Your task to perform on an android device: turn off improve location accuracy Image 0: 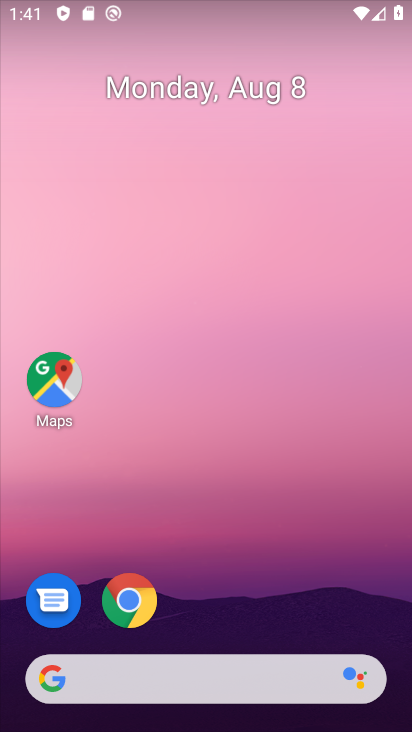
Step 0: drag from (294, 636) to (123, 725)
Your task to perform on an android device: turn off improve location accuracy Image 1: 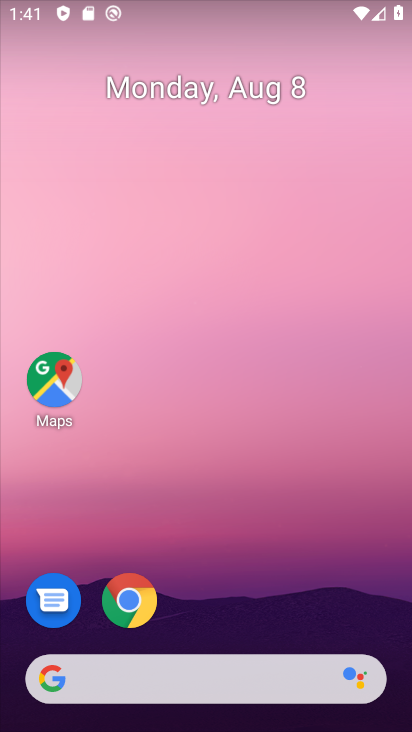
Step 1: drag from (329, 486) to (260, 3)
Your task to perform on an android device: turn off improve location accuracy Image 2: 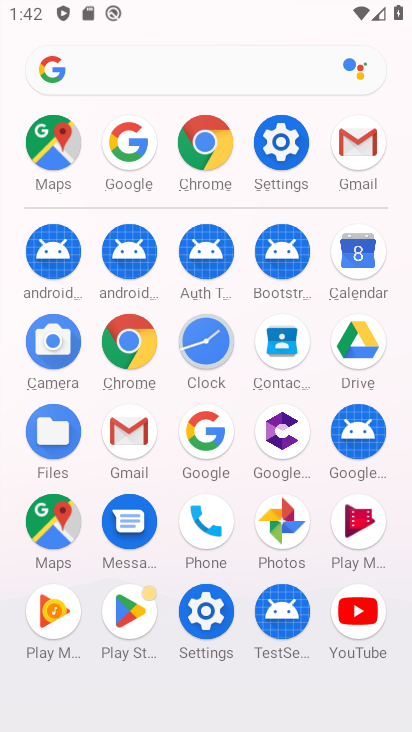
Step 2: click (275, 138)
Your task to perform on an android device: turn off improve location accuracy Image 3: 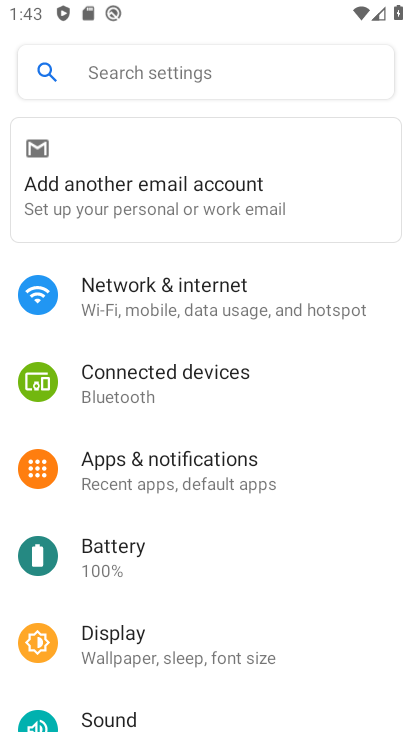
Step 3: drag from (196, 602) to (182, 90)
Your task to perform on an android device: turn off improve location accuracy Image 4: 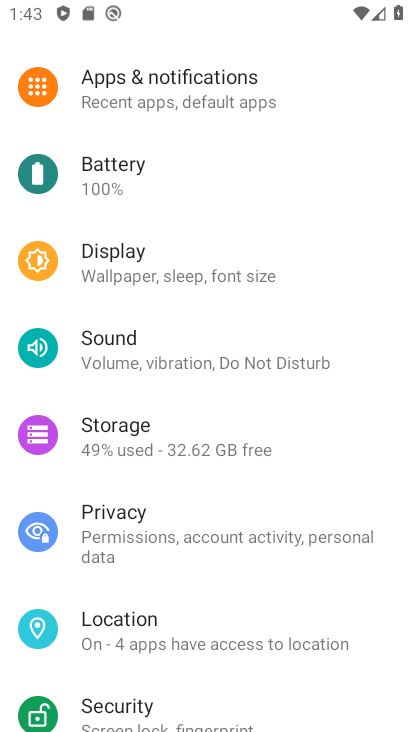
Step 4: click (209, 631)
Your task to perform on an android device: turn off improve location accuracy Image 5: 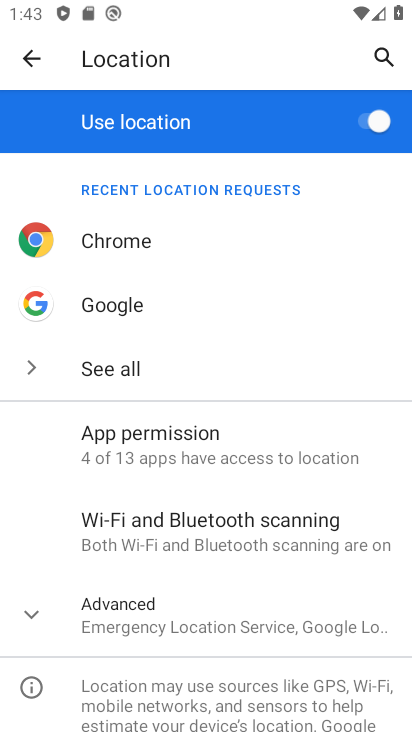
Step 5: drag from (236, 476) to (230, 213)
Your task to perform on an android device: turn off improve location accuracy Image 6: 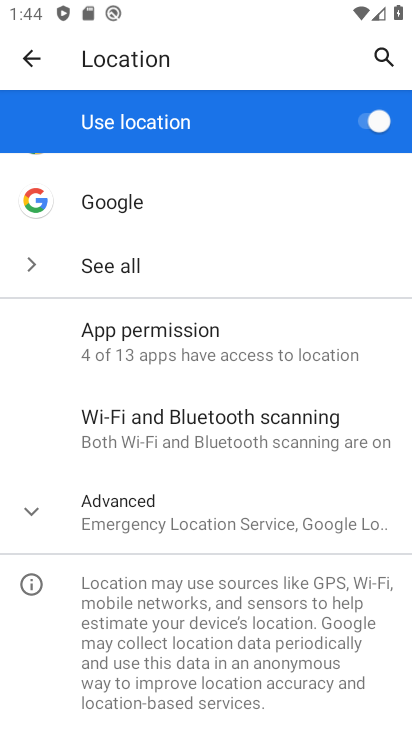
Step 6: click (240, 518)
Your task to perform on an android device: turn off improve location accuracy Image 7: 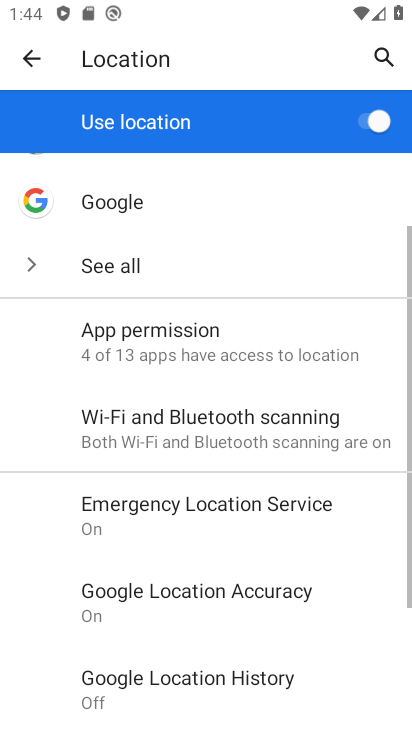
Step 7: drag from (240, 518) to (213, 327)
Your task to perform on an android device: turn off improve location accuracy Image 8: 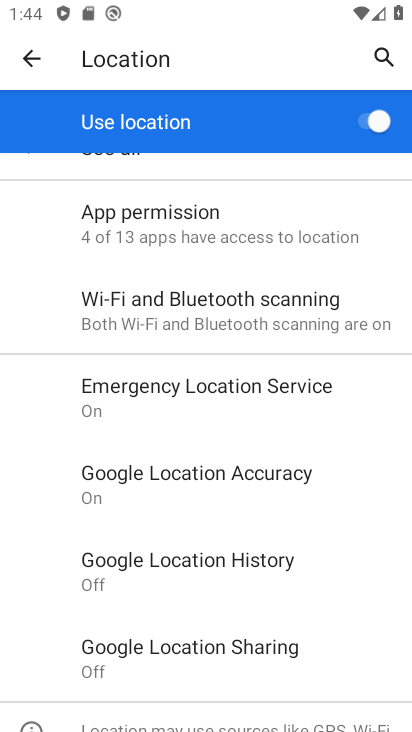
Step 8: click (253, 477)
Your task to perform on an android device: turn off improve location accuracy Image 9: 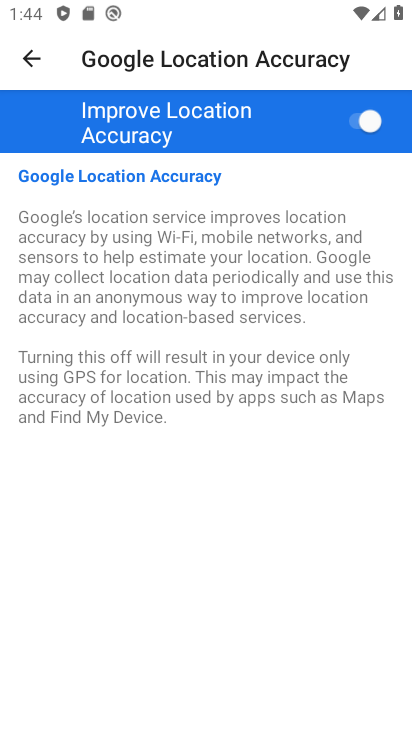
Step 9: click (278, 140)
Your task to perform on an android device: turn off improve location accuracy Image 10: 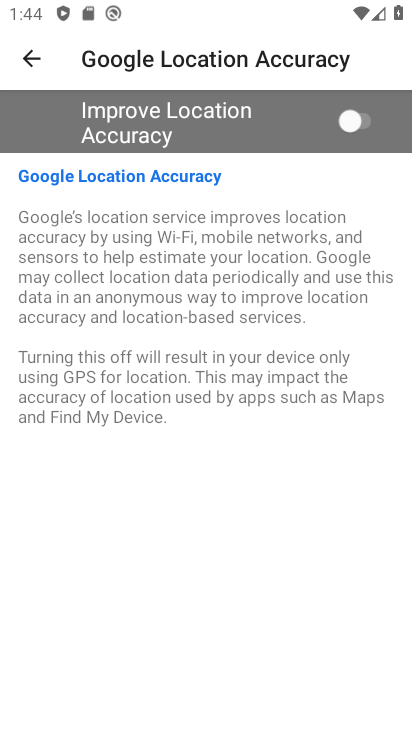
Step 10: task complete